Your task to perform on an android device: delete location history Image 0: 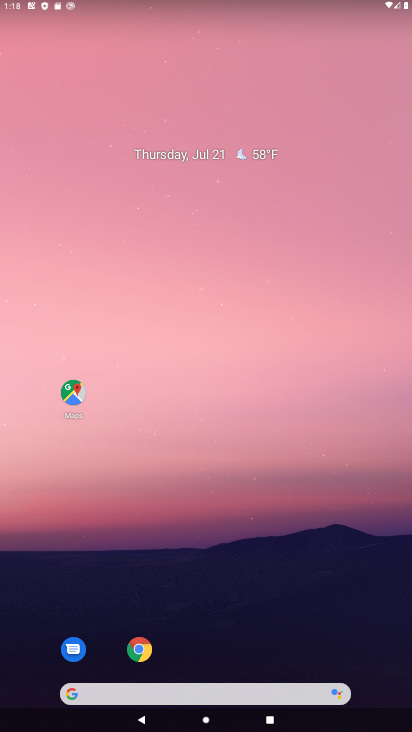
Step 0: drag from (280, 651) to (246, 111)
Your task to perform on an android device: delete location history Image 1: 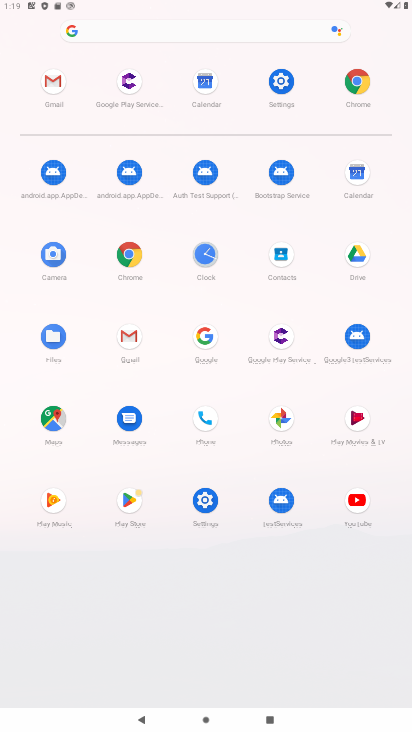
Step 1: click (268, 77)
Your task to perform on an android device: delete location history Image 2: 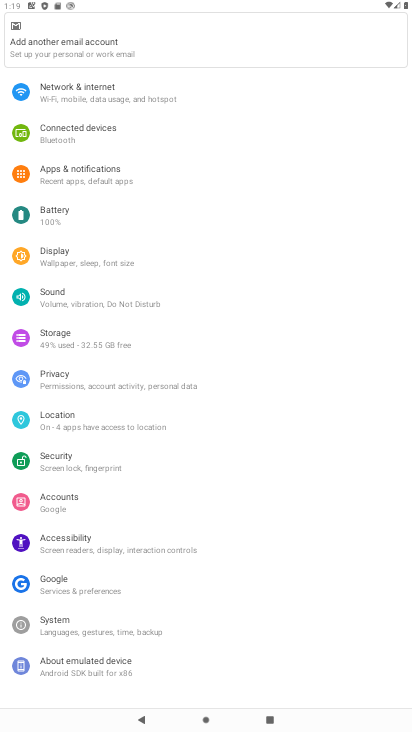
Step 2: click (128, 434)
Your task to perform on an android device: delete location history Image 3: 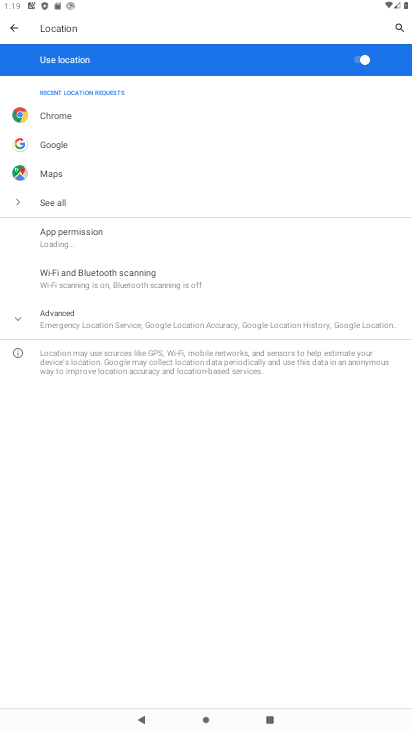
Step 3: task complete